Your task to perform on an android device: check android version Image 0: 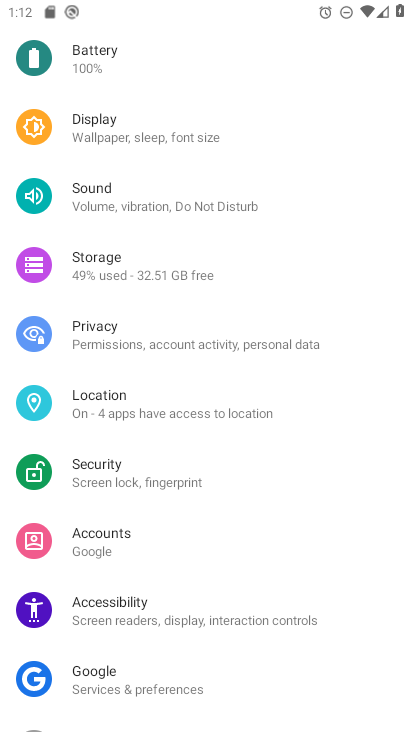
Step 0: drag from (170, 693) to (217, 214)
Your task to perform on an android device: check android version Image 1: 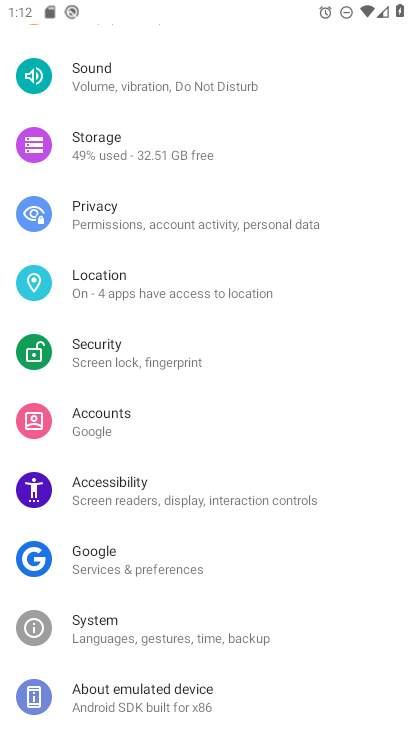
Step 1: click (135, 625)
Your task to perform on an android device: check android version Image 2: 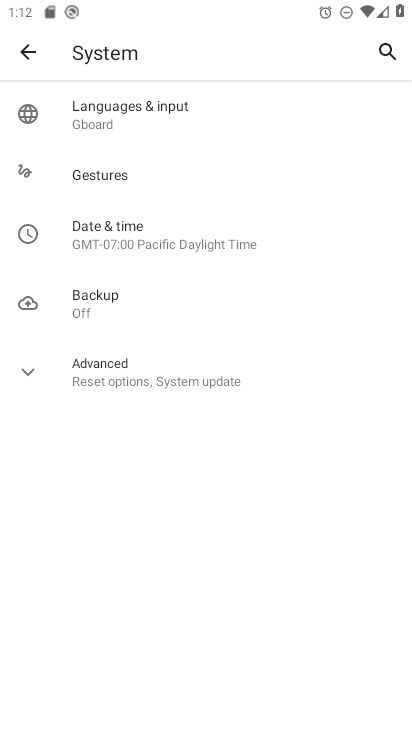
Step 2: task complete